Your task to perform on an android device: delete browsing data in the chrome app Image 0: 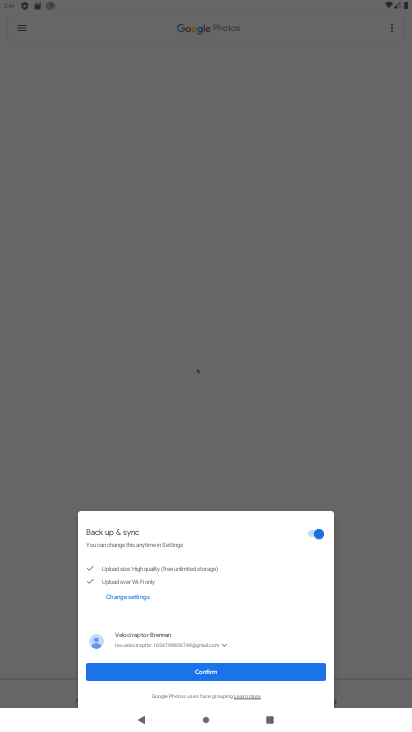
Step 0: press home button
Your task to perform on an android device: delete browsing data in the chrome app Image 1: 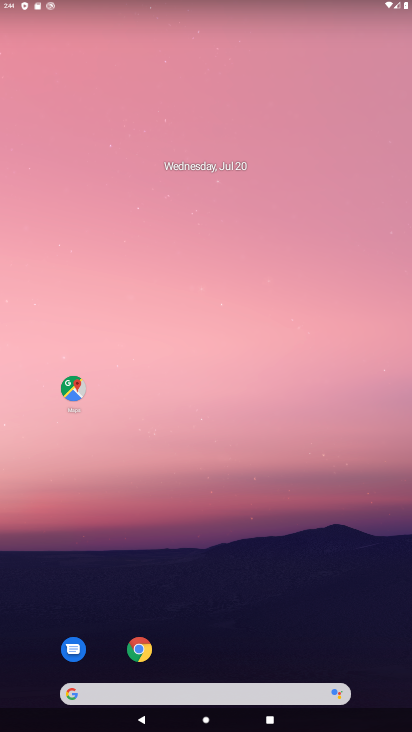
Step 1: click (138, 651)
Your task to perform on an android device: delete browsing data in the chrome app Image 2: 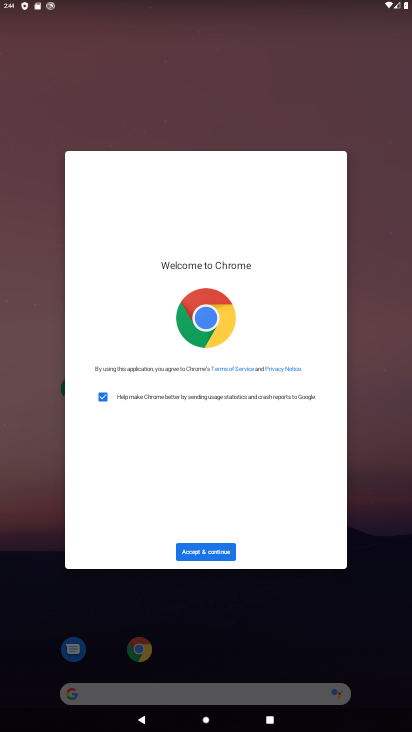
Step 2: click (203, 548)
Your task to perform on an android device: delete browsing data in the chrome app Image 3: 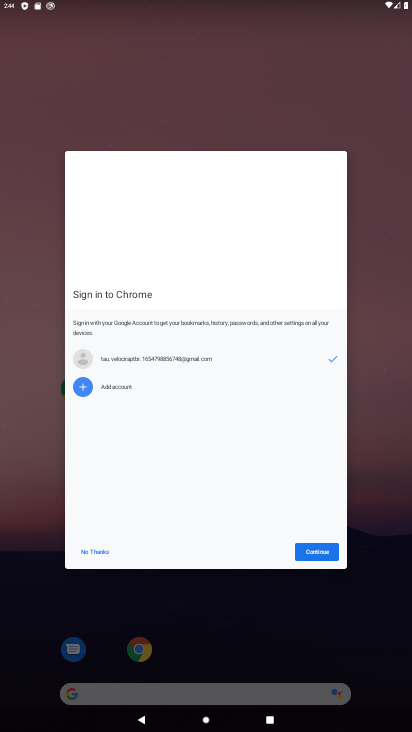
Step 3: click (307, 548)
Your task to perform on an android device: delete browsing data in the chrome app Image 4: 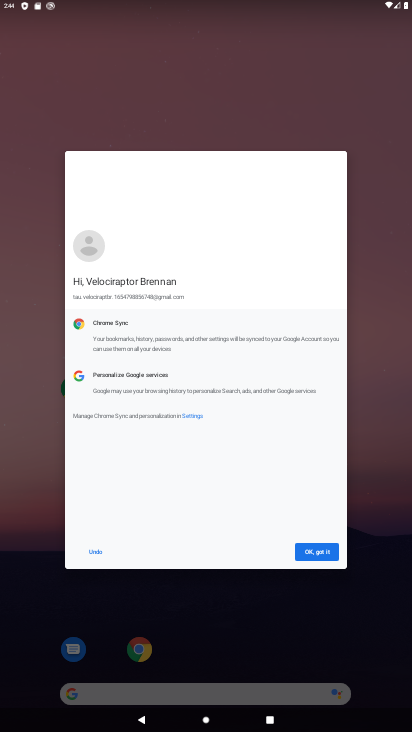
Step 4: click (307, 548)
Your task to perform on an android device: delete browsing data in the chrome app Image 5: 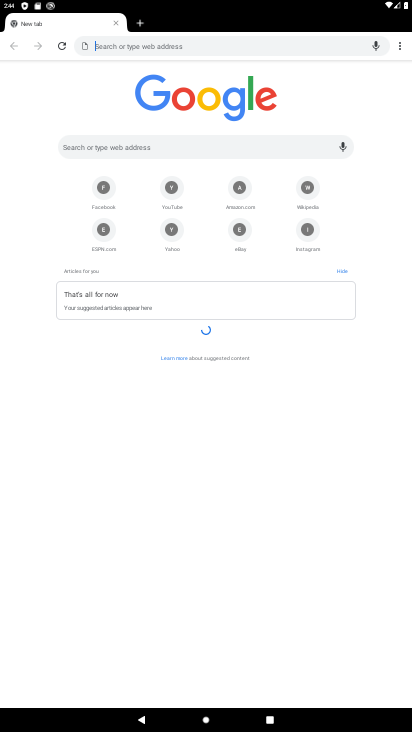
Step 5: click (398, 47)
Your task to perform on an android device: delete browsing data in the chrome app Image 6: 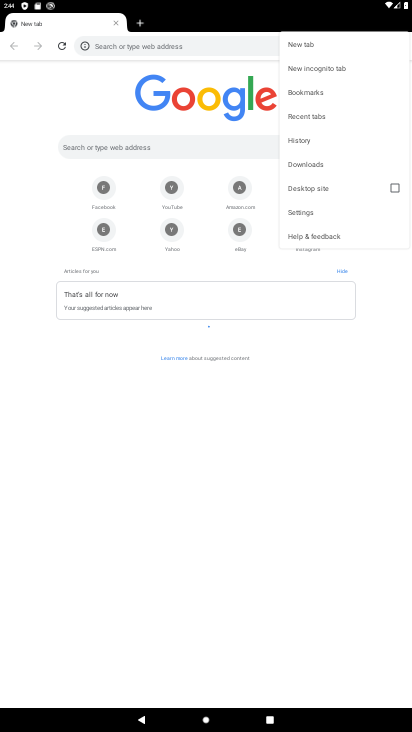
Step 6: click (316, 215)
Your task to perform on an android device: delete browsing data in the chrome app Image 7: 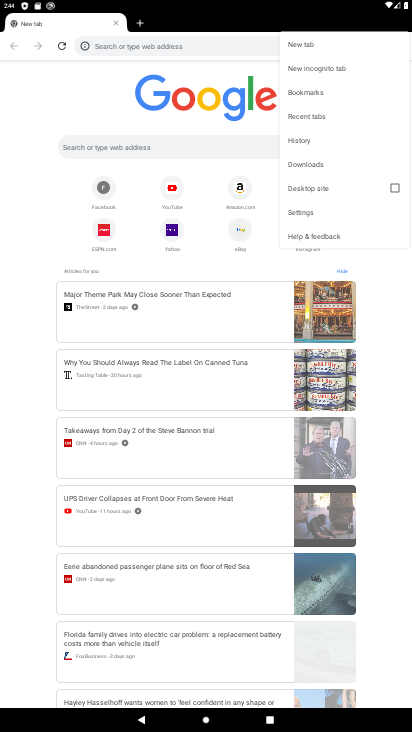
Step 7: click (303, 208)
Your task to perform on an android device: delete browsing data in the chrome app Image 8: 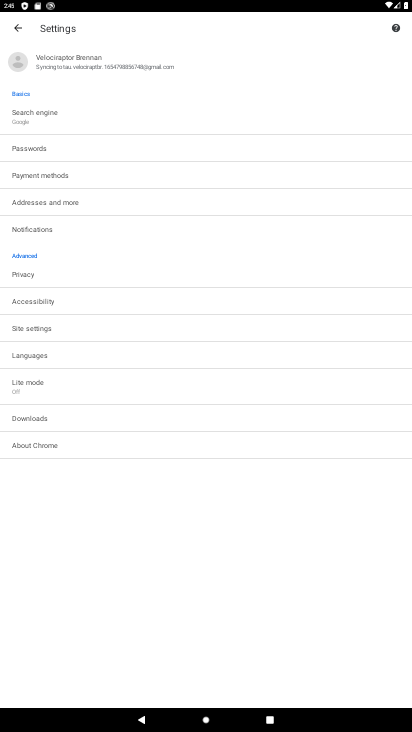
Step 8: click (40, 277)
Your task to perform on an android device: delete browsing data in the chrome app Image 9: 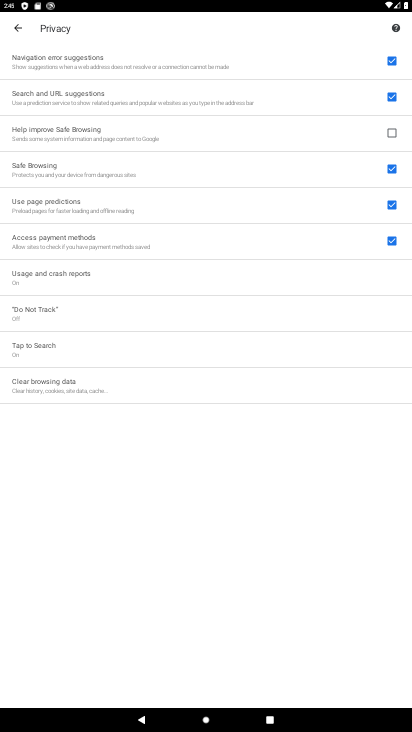
Step 9: click (68, 379)
Your task to perform on an android device: delete browsing data in the chrome app Image 10: 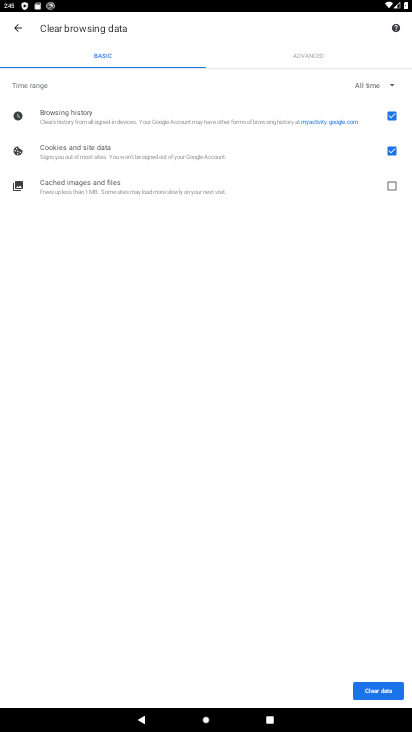
Step 10: click (393, 187)
Your task to perform on an android device: delete browsing data in the chrome app Image 11: 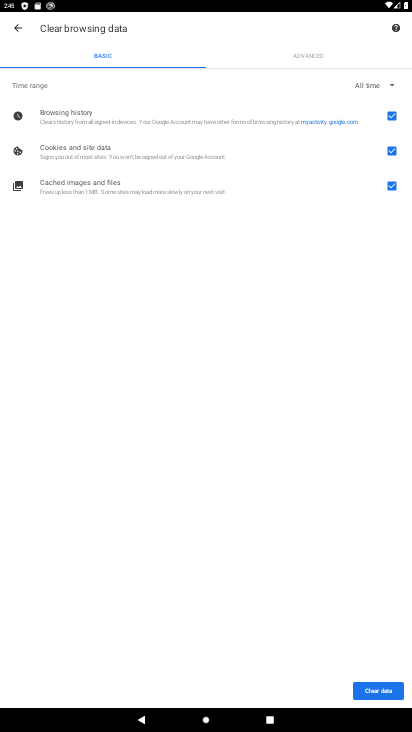
Step 11: click (382, 689)
Your task to perform on an android device: delete browsing data in the chrome app Image 12: 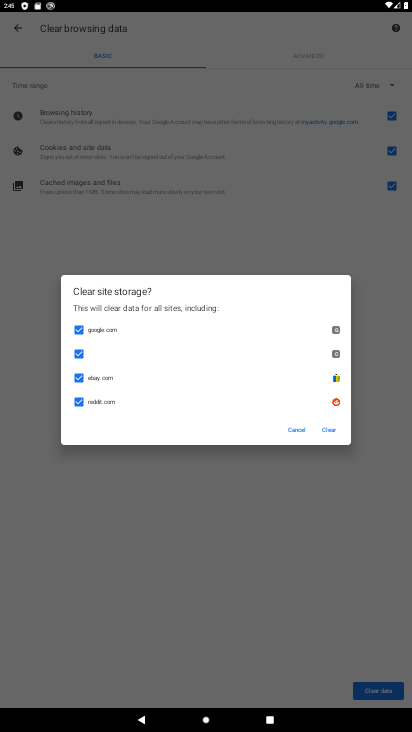
Step 12: click (328, 429)
Your task to perform on an android device: delete browsing data in the chrome app Image 13: 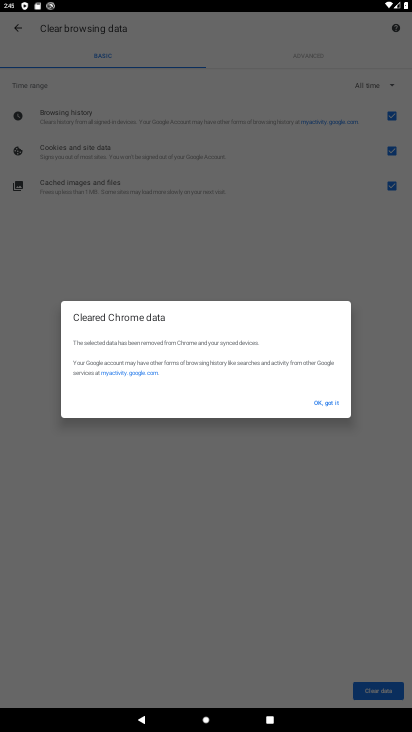
Step 13: click (318, 404)
Your task to perform on an android device: delete browsing data in the chrome app Image 14: 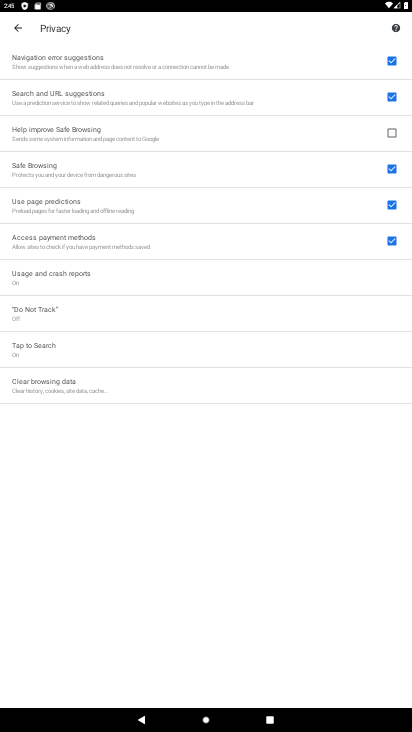
Step 14: task complete